Your task to perform on an android device: Search for Mexican restaurants on Maps Image 0: 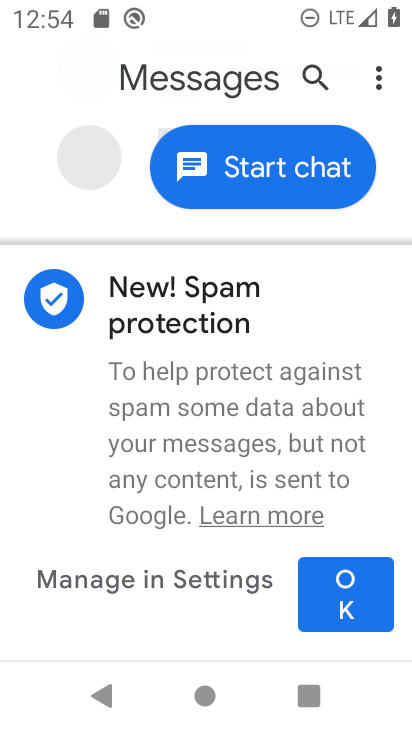
Step 0: press home button
Your task to perform on an android device: Search for Mexican restaurants on Maps Image 1: 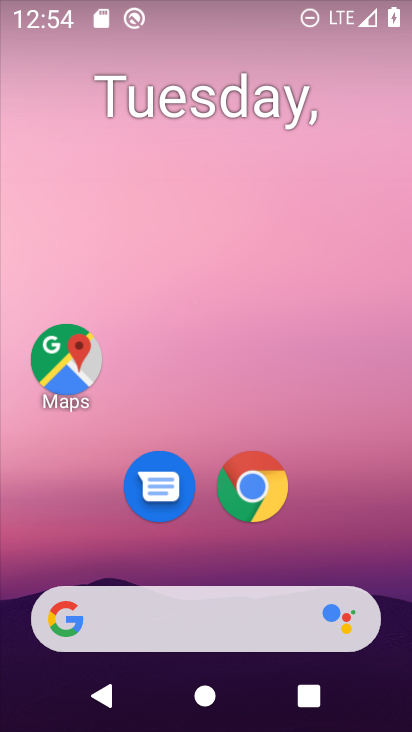
Step 1: drag from (216, 559) to (292, 126)
Your task to perform on an android device: Search for Mexican restaurants on Maps Image 2: 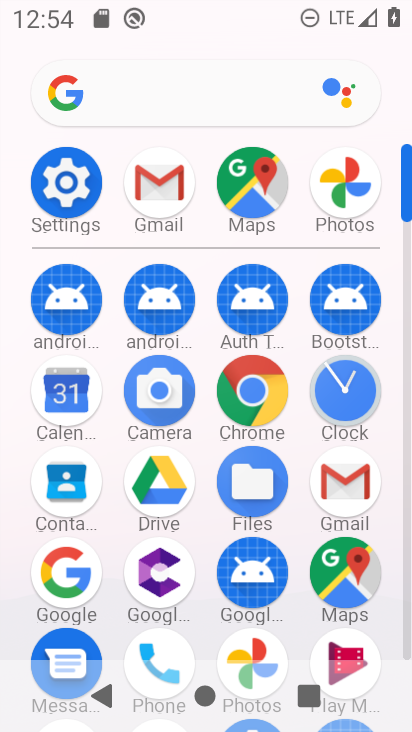
Step 2: drag from (204, 258) to (195, 73)
Your task to perform on an android device: Search for Mexican restaurants on Maps Image 3: 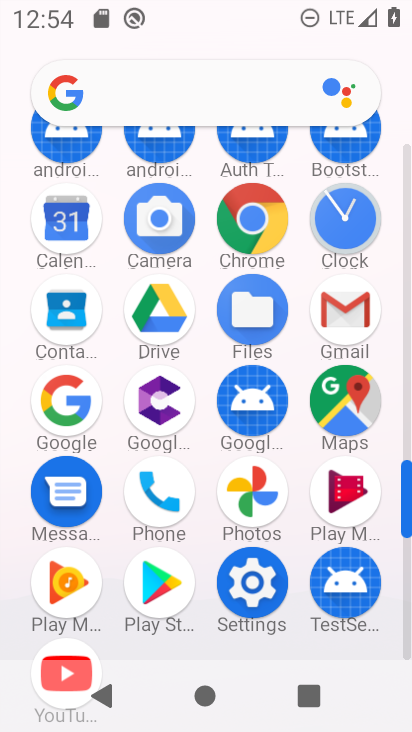
Step 3: click (345, 398)
Your task to perform on an android device: Search for Mexican restaurants on Maps Image 4: 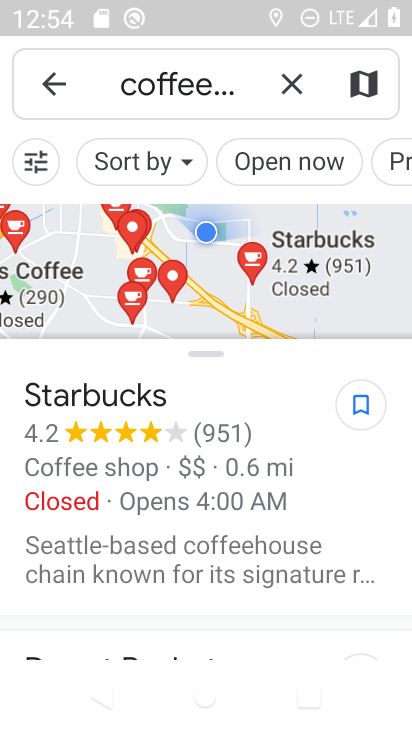
Step 4: press back button
Your task to perform on an android device: Search for Mexican restaurants on Maps Image 5: 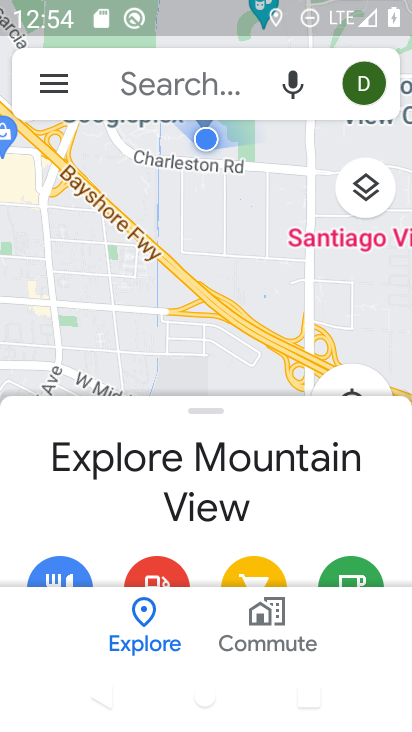
Step 5: click (198, 71)
Your task to perform on an android device: Search for Mexican restaurants on Maps Image 6: 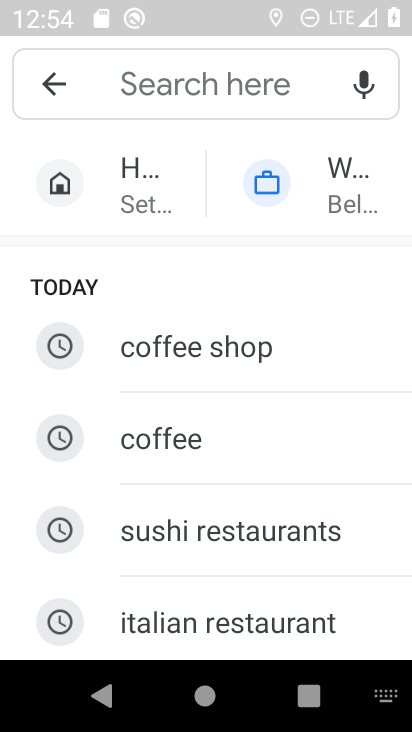
Step 6: drag from (277, 585) to (220, 209)
Your task to perform on an android device: Search for Mexican restaurants on Maps Image 7: 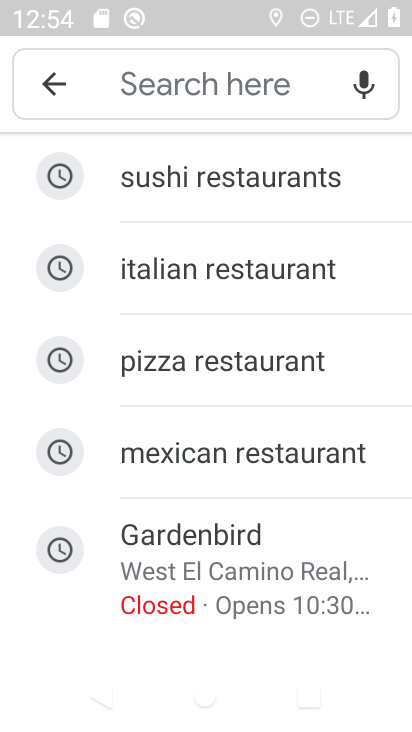
Step 7: click (257, 451)
Your task to perform on an android device: Search for Mexican restaurants on Maps Image 8: 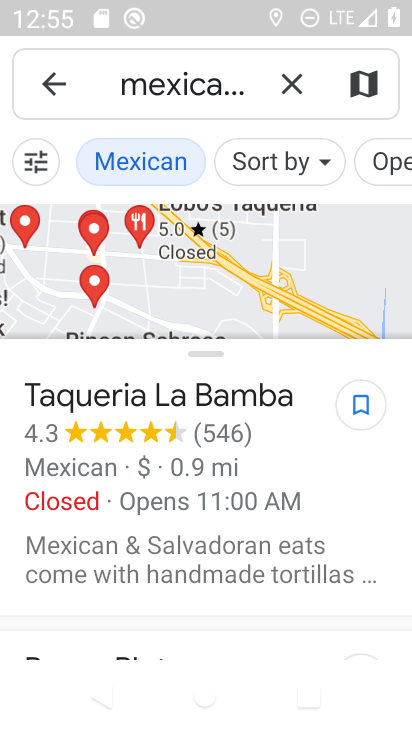
Step 8: task complete